Your task to perform on an android device: Go to Wikipedia Image 0: 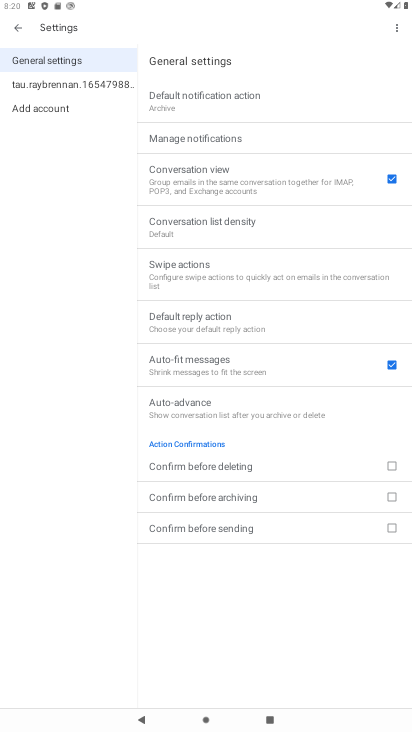
Step 0: press home button
Your task to perform on an android device: Go to Wikipedia Image 1: 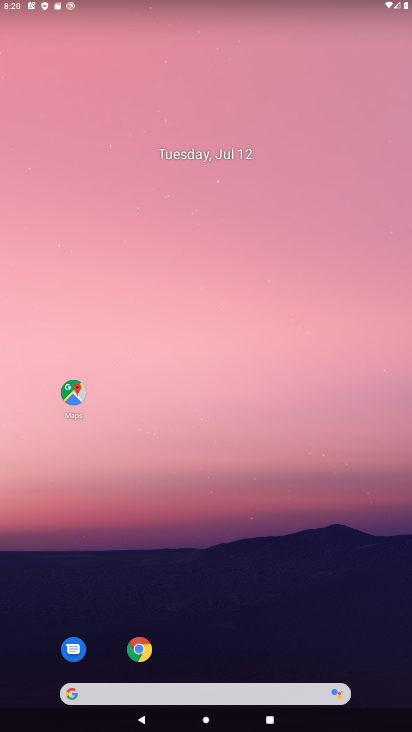
Step 1: click (139, 650)
Your task to perform on an android device: Go to Wikipedia Image 2: 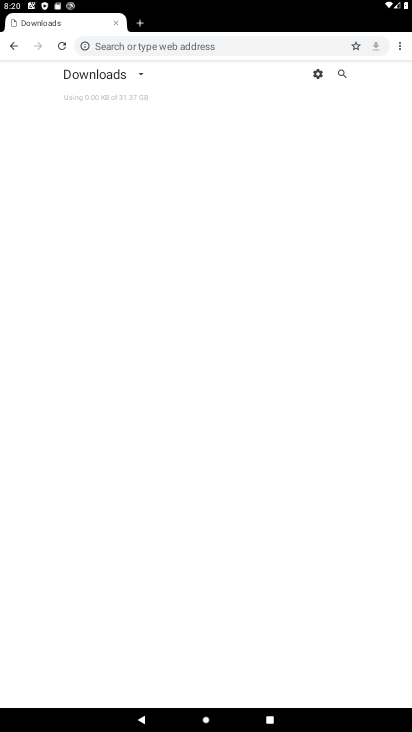
Step 2: task complete